Your task to perform on an android device: turn off translation in the chrome app Image 0: 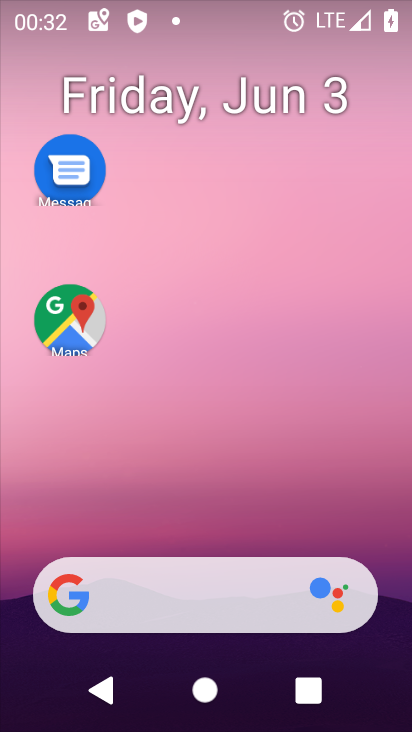
Step 0: drag from (273, 475) to (285, 1)
Your task to perform on an android device: turn off translation in the chrome app Image 1: 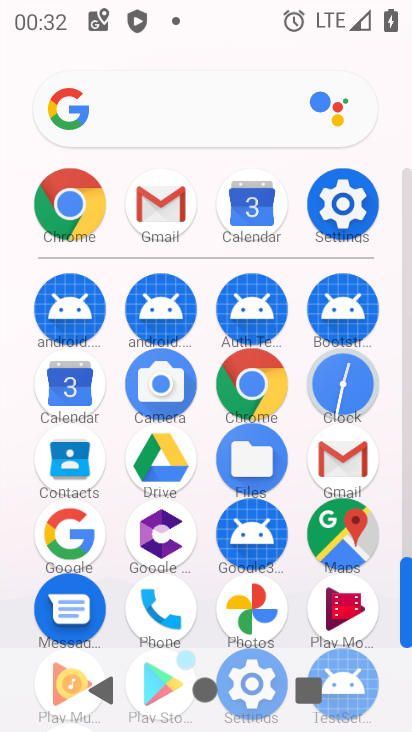
Step 1: click (88, 249)
Your task to perform on an android device: turn off translation in the chrome app Image 2: 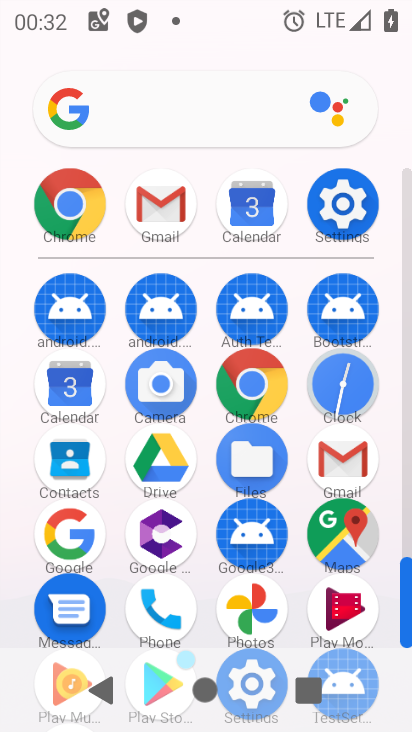
Step 2: click (57, 215)
Your task to perform on an android device: turn off translation in the chrome app Image 3: 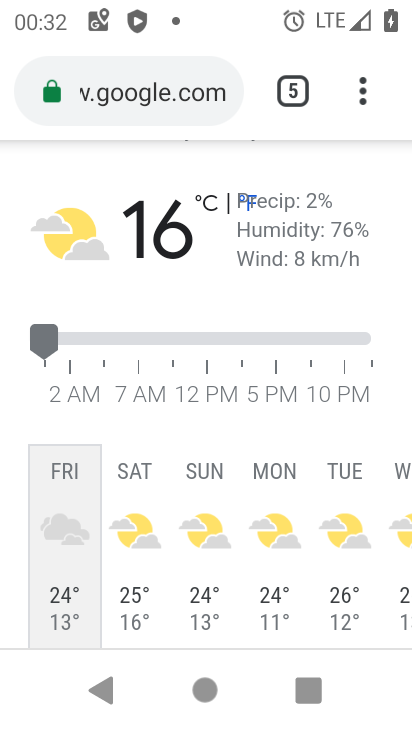
Step 3: drag from (355, 96) to (102, 486)
Your task to perform on an android device: turn off translation in the chrome app Image 4: 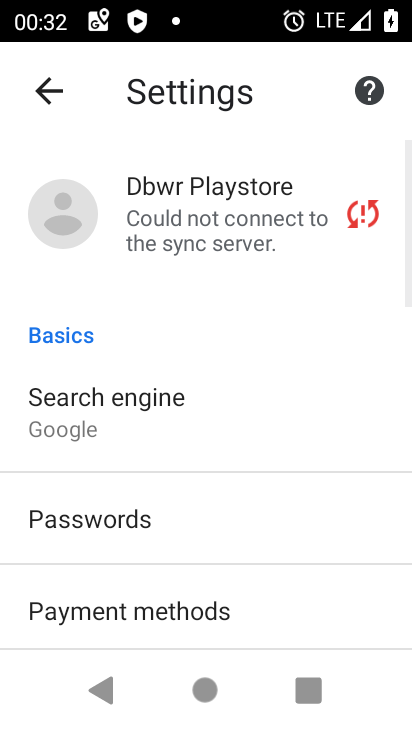
Step 4: drag from (243, 625) to (189, 4)
Your task to perform on an android device: turn off translation in the chrome app Image 5: 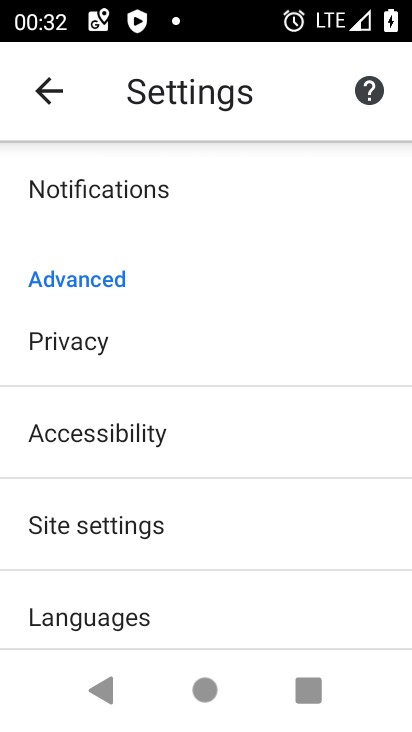
Step 5: click (136, 624)
Your task to perform on an android device: turn off translation in the chrome app Image 6: 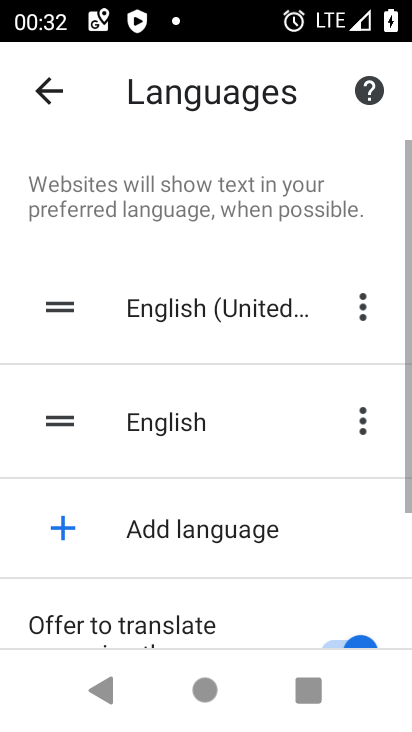
Step 6: drag from (212, 596) to (186, 277)
Your task to perform on an android device: turn off translation in the chrome app Image 7: 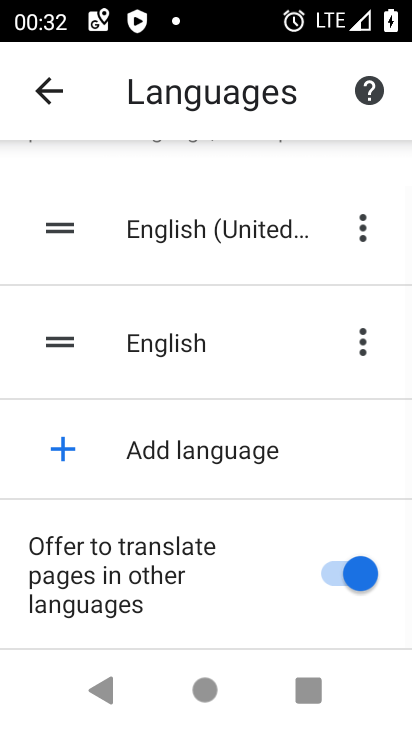
Step 7: click (187, 625)
Your task to perform on an android device: turn off translation in the chrome app Image 8: 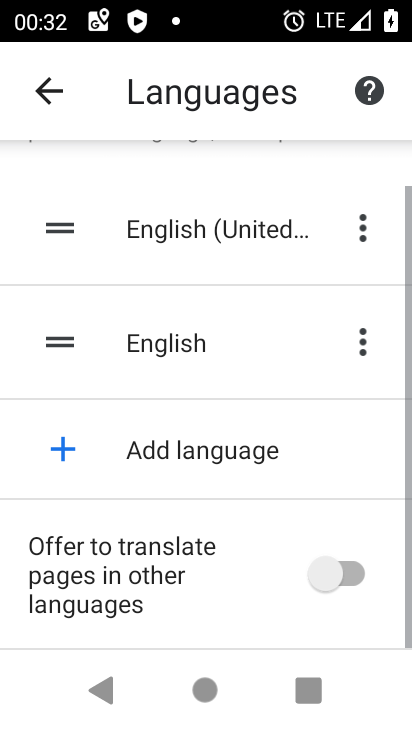
Step 8: task complete